Your task to perform on an android device: Open sound settings Image 0: 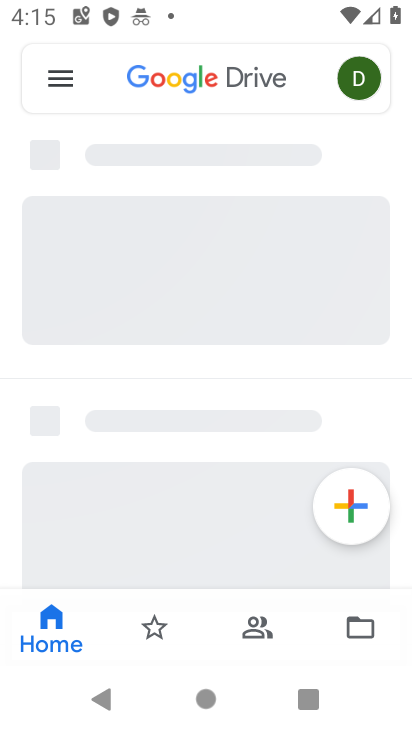
Step 0: press back button
Your task to perform on an android device: Open sound settings Image 1: 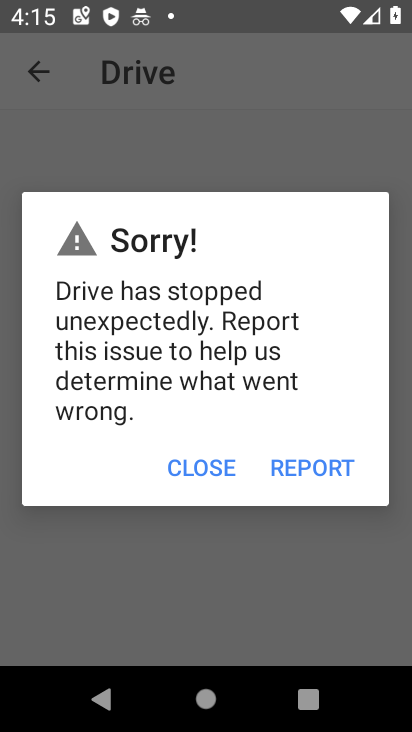
Step 1: press home button
Your task to perform on an android device: Open sound settings Image 2: 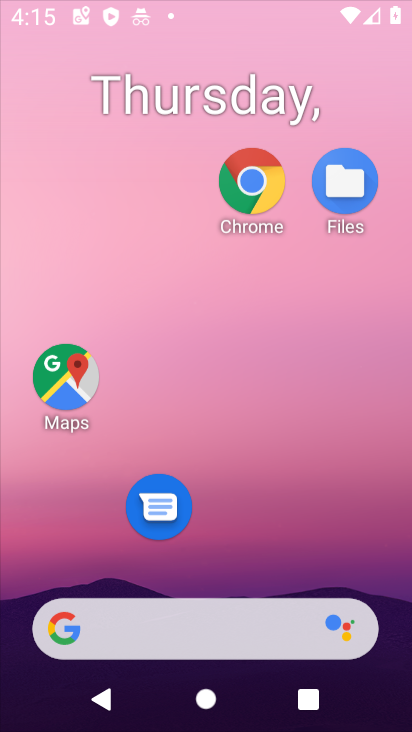
Step 2: press home button
Your task to perform on an android device: Open sound settings Image 3: 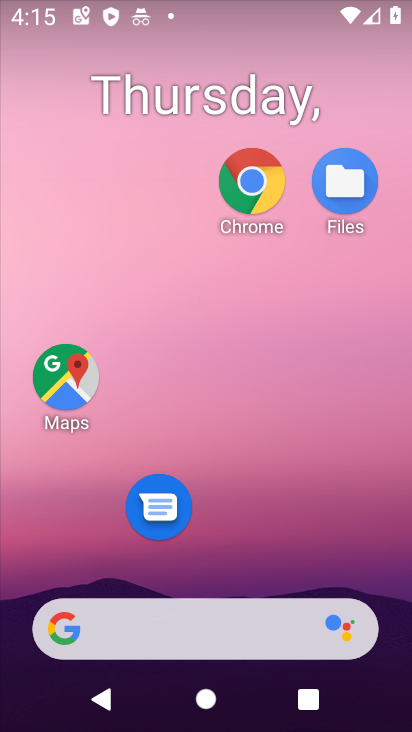
Step 3: drag from (224, 679) to (251, 237)
Your task to perform on an android device: Open sound settings Image 4: 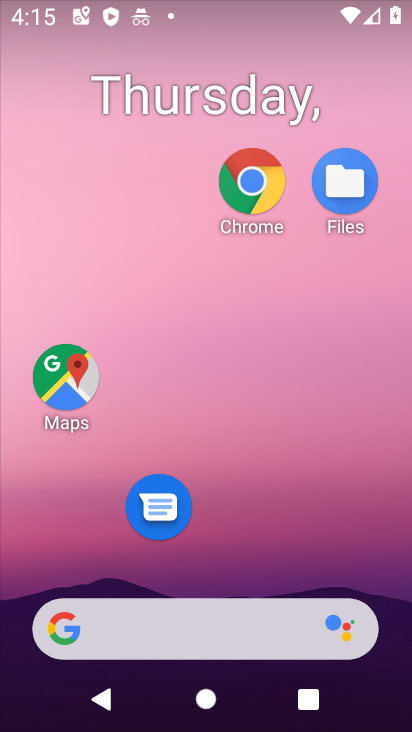
Step 4: drag from (215, 652) to (217, 155)
Your task to perform on an android device: Open sound settings Image 5: 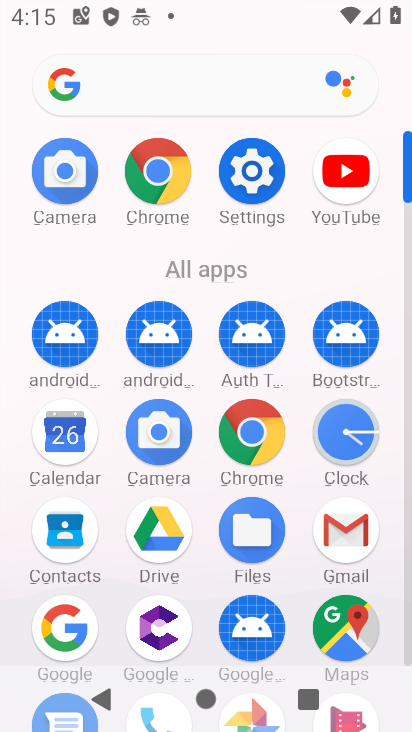
Step 5: drag from (248, 669) to (297, 85)
Your task to perform on an android device: Open sound settings Image 6: 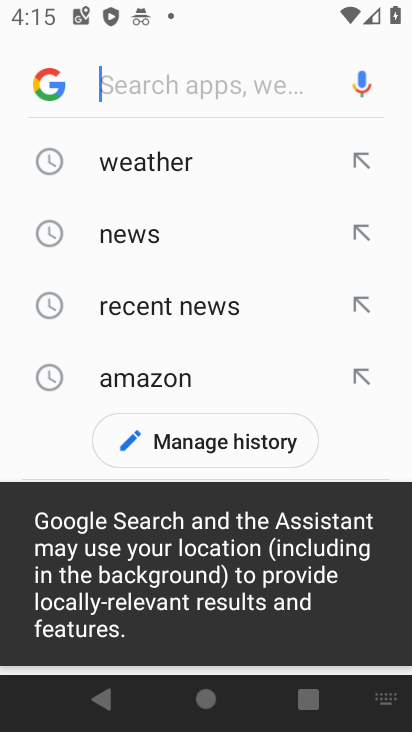
Step 6: click (257, 175)
Your task to perform on an android device: Open sound settings Image 7: 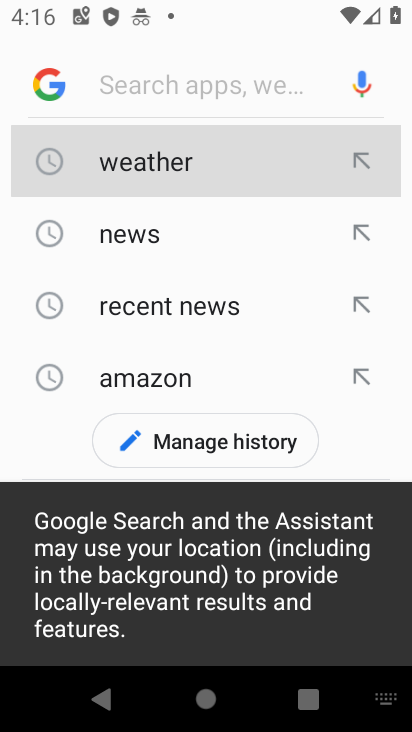
Step 7: click (267, 177)
Your task to perform on an android device: Open sound settings Image 8: 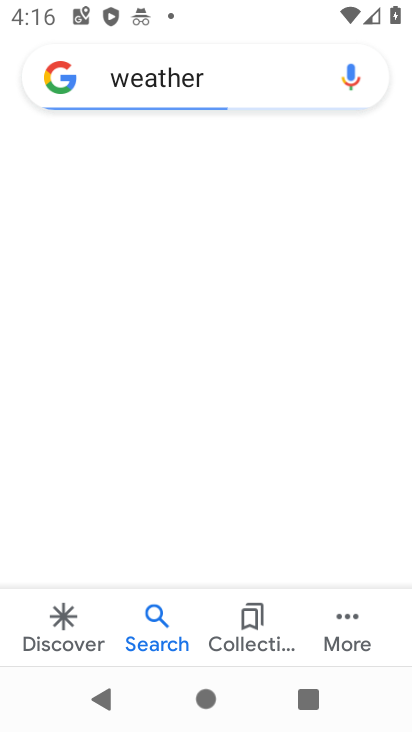
Step 8: press back button
Your task to perform on an android device: Open sound settings Image 9: 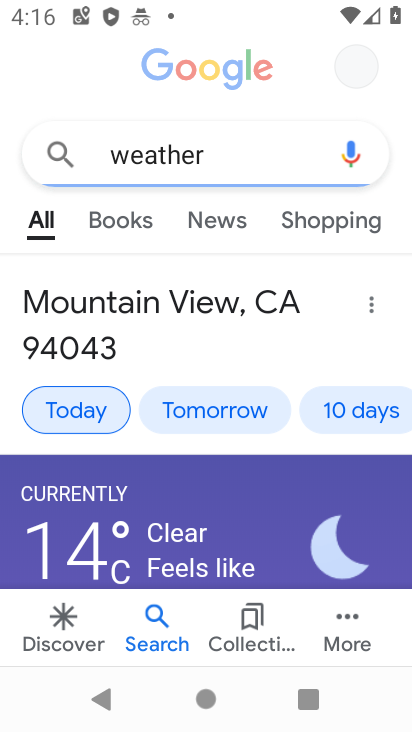
Step 9: press back button
Your task to perform on an android device: Open sound settings Image 10: 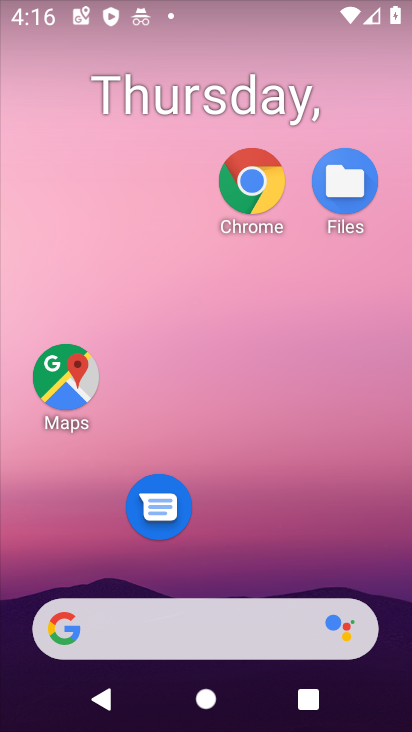
Step 10: drag from (228, 689) to (179, 245)
Your task to perform on an android device: Open sound settings Image 11: 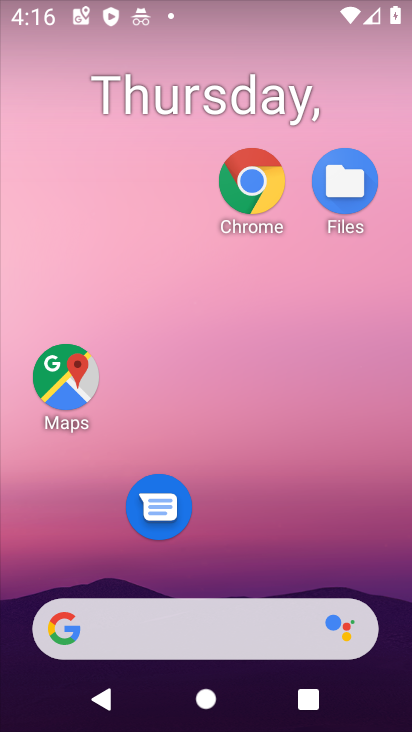
Step 11: drag from (218, 571) to (205, 207)
Your task to perform on an android device: Open sound settings Image 12: 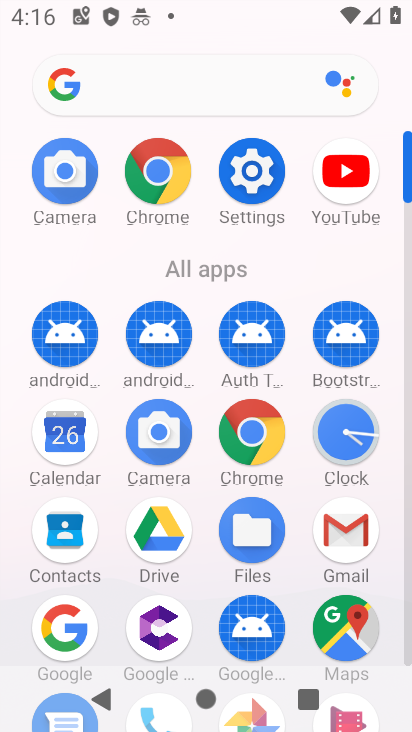
Step 12: drag from (260, 671) to (271, 83)
Your task to perform on an android device: Open sound settings Image 13: 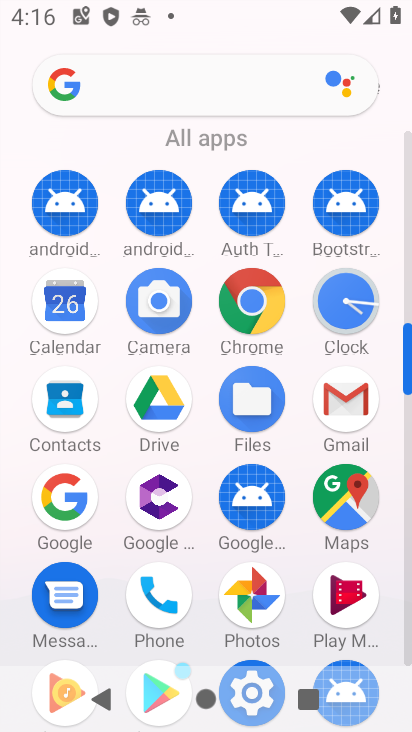
Step 13: drag from (278, 568) to (265, 221)
Your task to perform on an android device: Open sound settings Image 14: 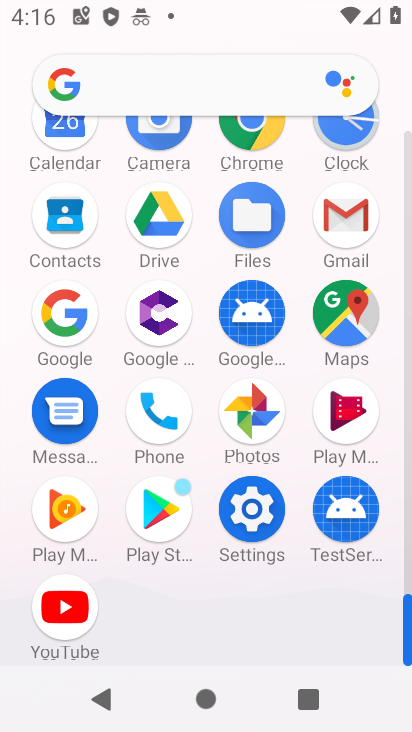
Step 14: drag from (271, 462) to (347, 170)
Your task to perform on an android device: Open sound settings Image 15: 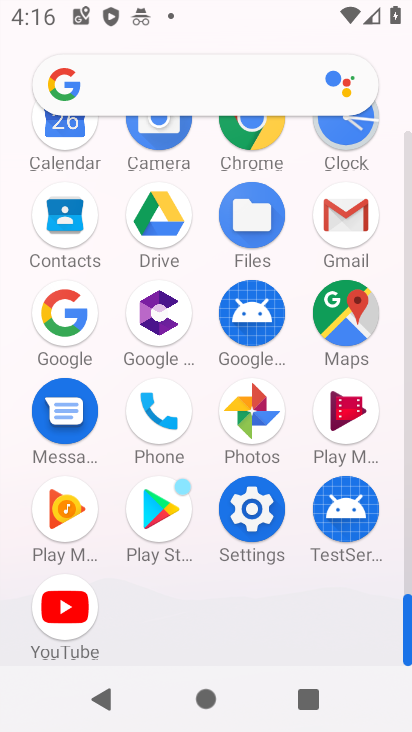
Step 15: click (250, 505)
Your task to perform on an android device: Open sound settings Image 16: 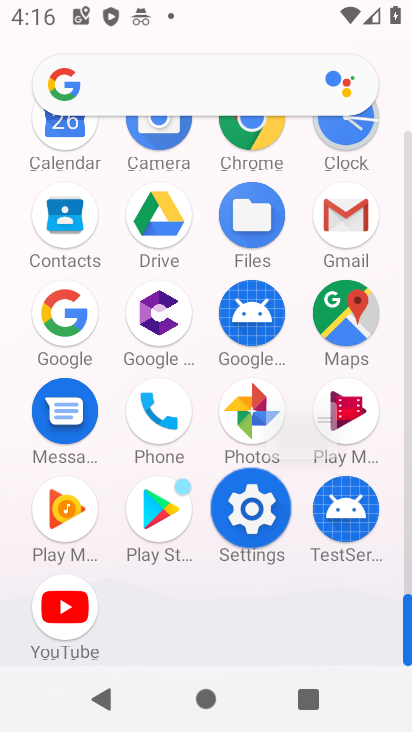
Step 16: click (250, 506)
Your task to perform on an android device: Open sound settings Image 17: 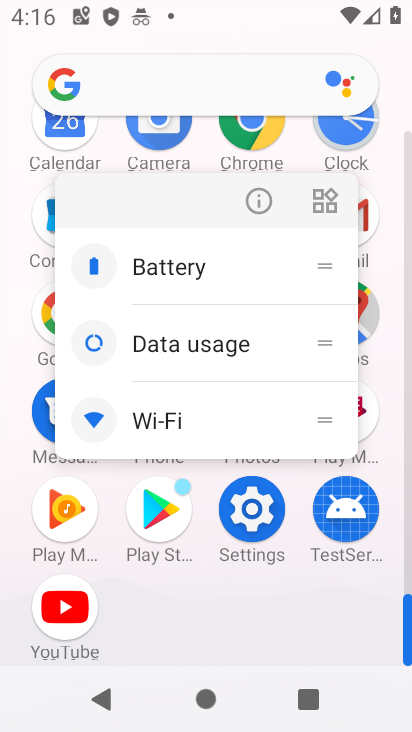
Step 17: click (250, 506)
Your task to perform on an android device: Open sound settings Image 18: 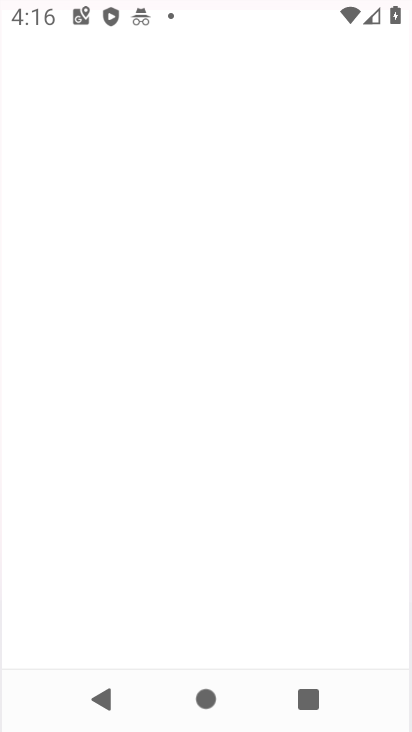
Step 18: click (257, 503)
Your task to perform on an android device: Open sound settings Image 19: 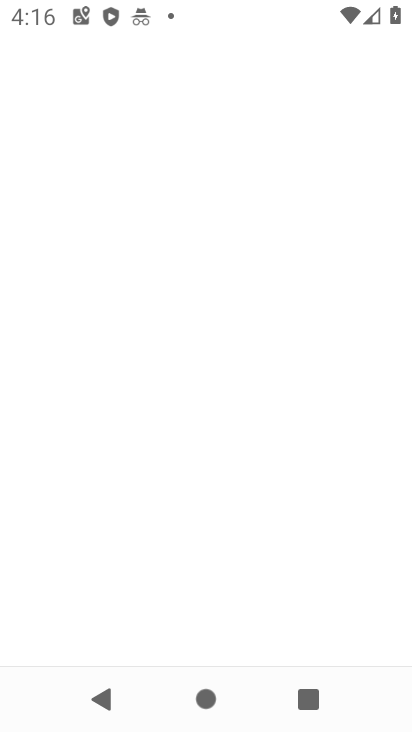
Step 19: click (261, 501)
Your task to perform on an android device: Open sound settings Image 20: 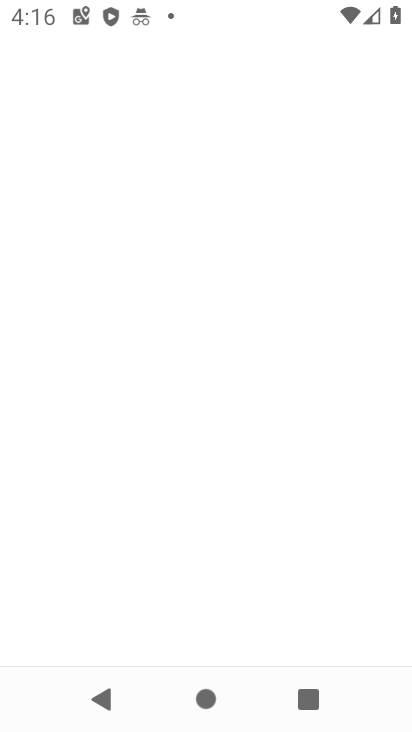
Step 20: click (261, 501)
Your task to perform on an android device: Open sound settings Image 21: 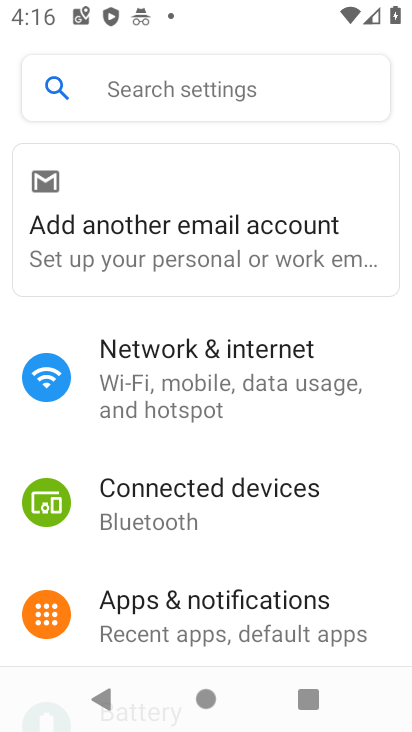
Step 21: drag from (135, 498) to (155, 434)
Your task to perform on an android device: Open sound settings Image 22: 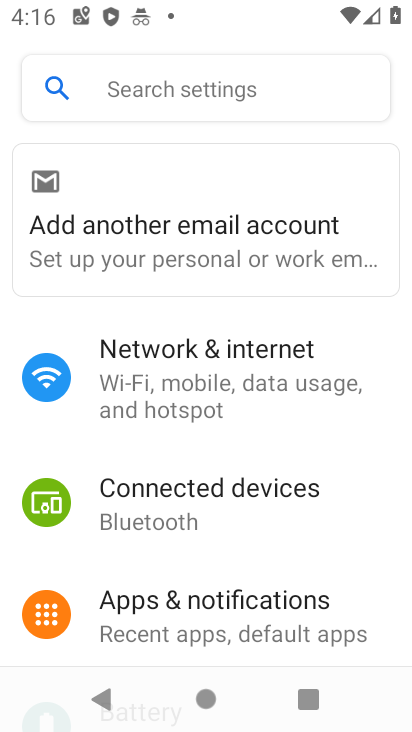
Step 22: drag from (233, 444) to (248, 275)
Your task to perform on an android device: Open sound settings Image 23: 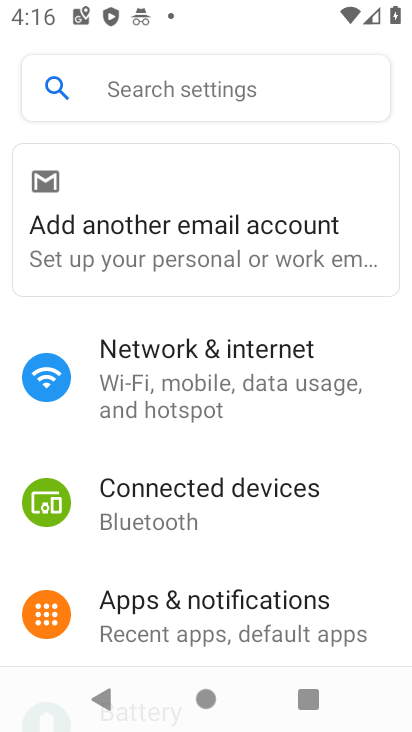
Step 23: drag from (203, 479) to (240, 225)
Your task to perform on an android device: Open sound settings Image 24: 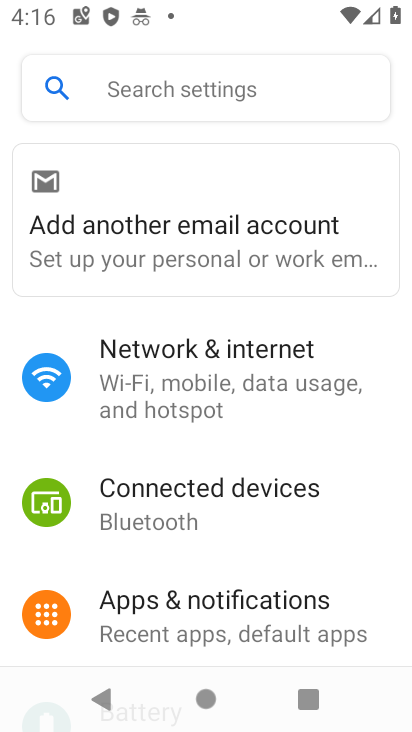
Step 24: drag from (211, 598) to (211, 231)
Your task to perform on an android device: Open sound settings Image 25: 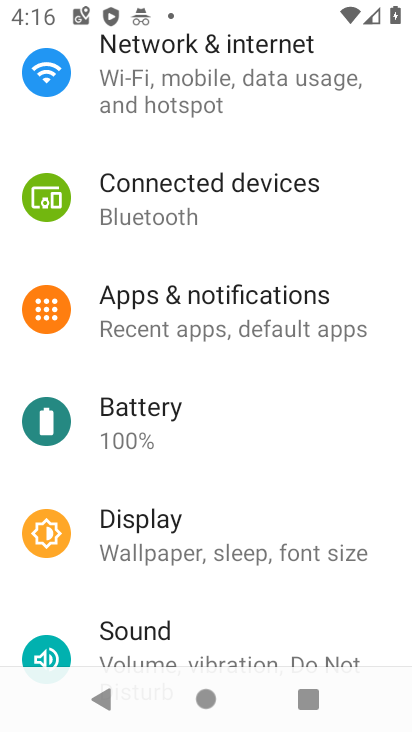
Step 25: drag from (256, 100) to (291, 66)
Your task to perform on an android device: Open sound settings Image 26: 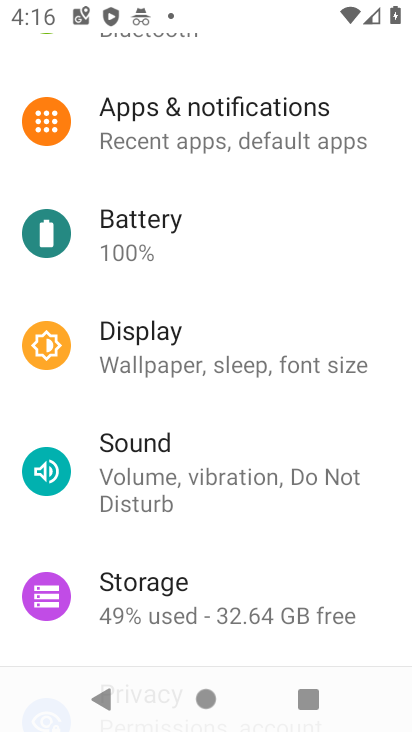
Step 26: drag from (243, 171) to (243, 123)
Your task to perform on an android device: Open sound settings Image 27: 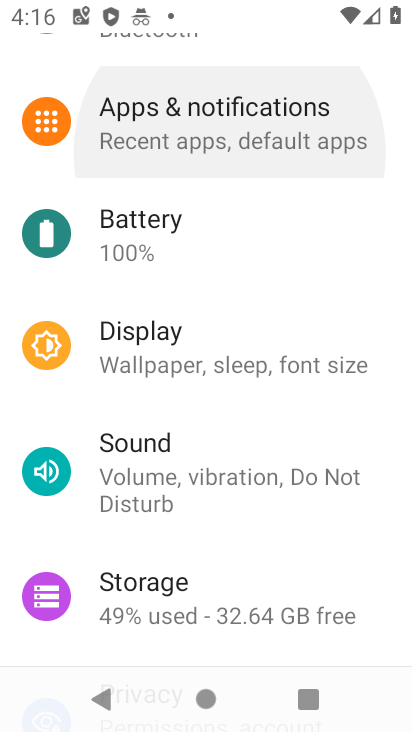
Step 27: click (188, 181)
Your task to perform on an android device: Open sound settings Image 28: 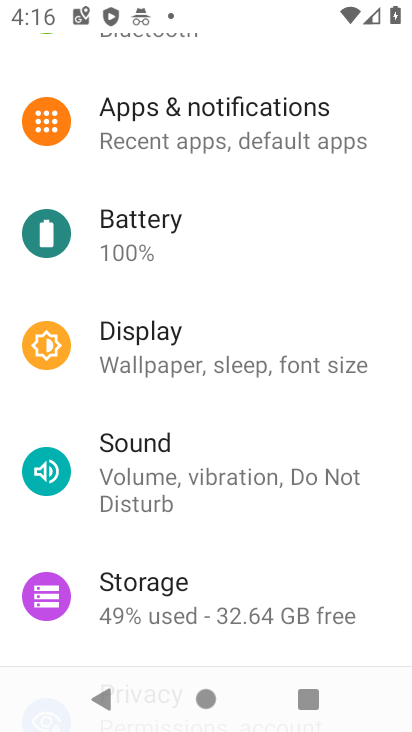
Step 28: click (226, 294)
Your task to perform on an android device: Open sound settings Image 29: 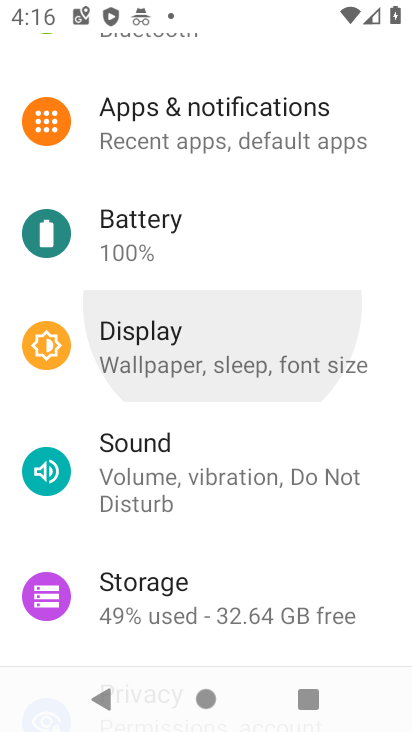
Step 29: task complete